Your task to perform on an android device: check out phone information Image 0: 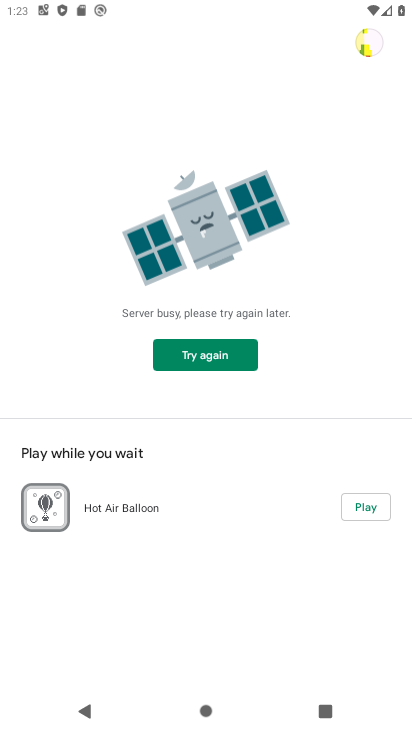
Step 0: press home button
Your task to perform on an android device: check out phone information Image 1: 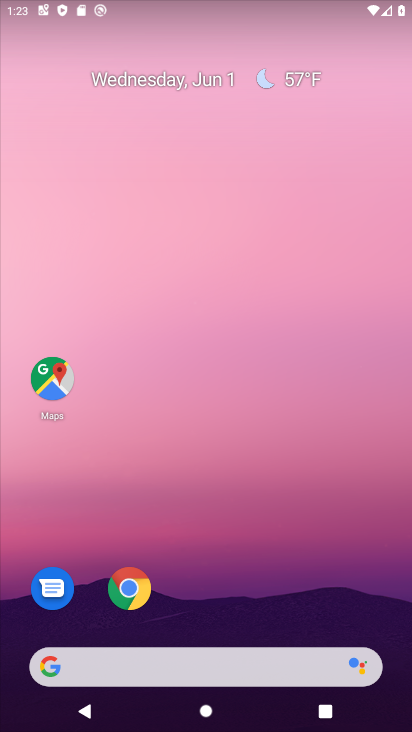
Step 1: drag from (196, 40) to (116, 6)
Your task to perform on an android device: check out phone information Image 2: 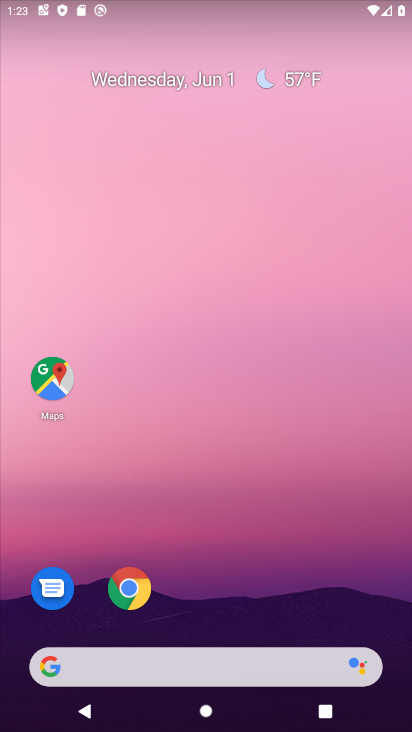
Step 2: drag from (280, 526) to (221, 33)
Your task to perform on an android device: check out phone information Image 3: 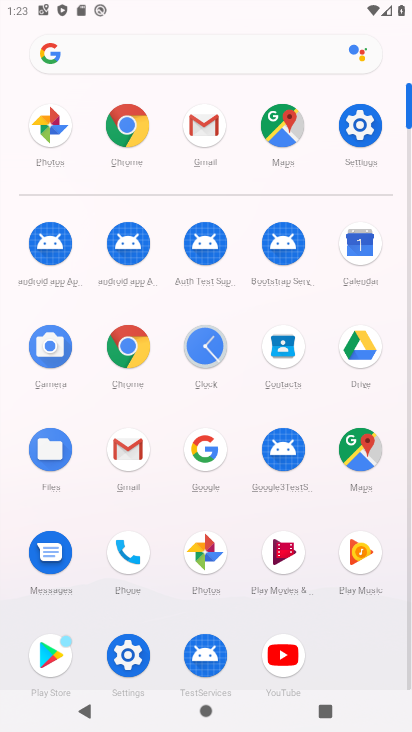
Step 3: click (345, 147)
Your task to perform on an android device: check out phone information Image 4: 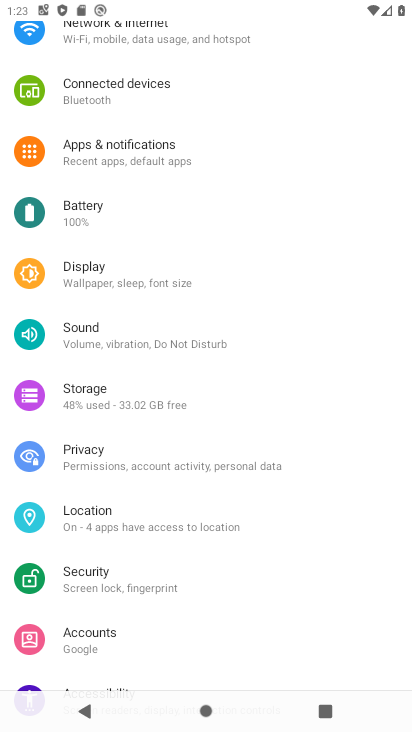
Step 4: drag from (230, 573) to (241, 24)
Your task to perform on an android device: check out phone information Image 5: 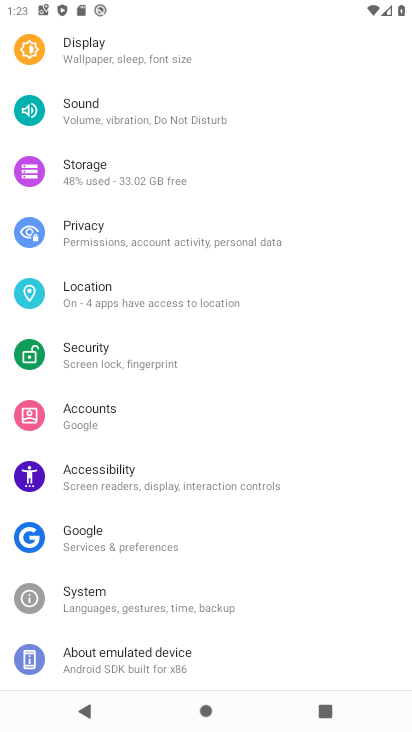
Step 5: drag from (192, 599) to (200, 135)
Your task to perform on an android device: check out phone information Image 6: 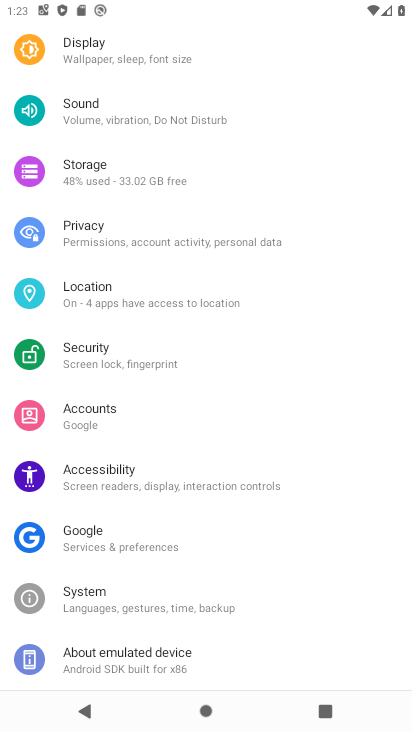
Step 6: click (186, 658)
Your task to perform on an android device: check out phone information Image 7: 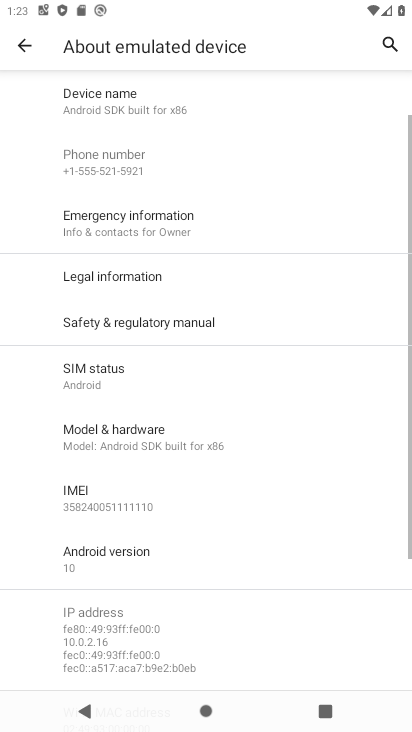
Step 7: task complete